Your task to perform on an android device: turn on showing notifications on the lock screen Image 0: 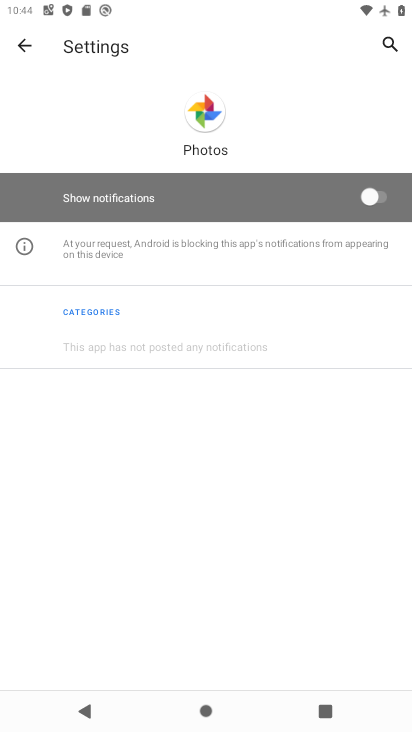
Step 0: press home button
Your task to perform on an android device: turn on showing notifications on the lock screen Image 1: 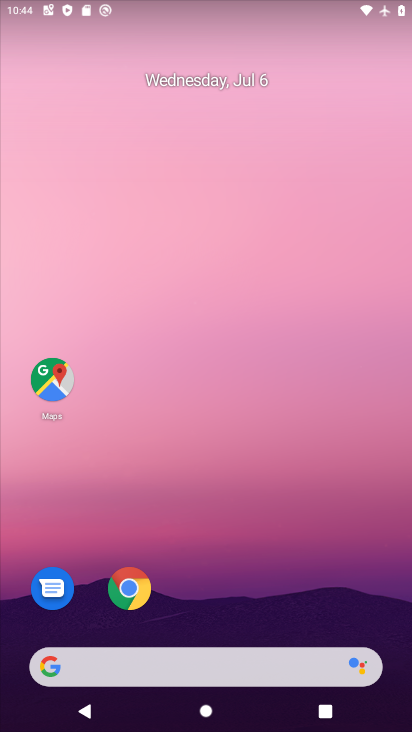
Step 1: drag from (265, 605) to (252, 275)
Your task to perform on an android device: turn on showing notifications on the lock screen Image 2: 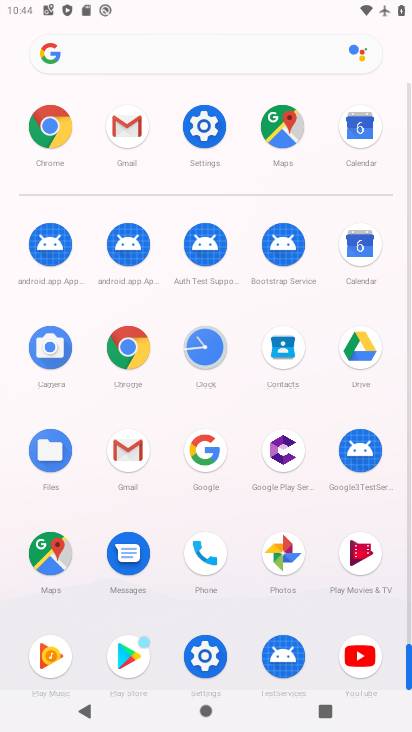
Step 2: click (216, 124)
Your task to perform on an android device: turn on showing notifications on the lock screen Image 3: 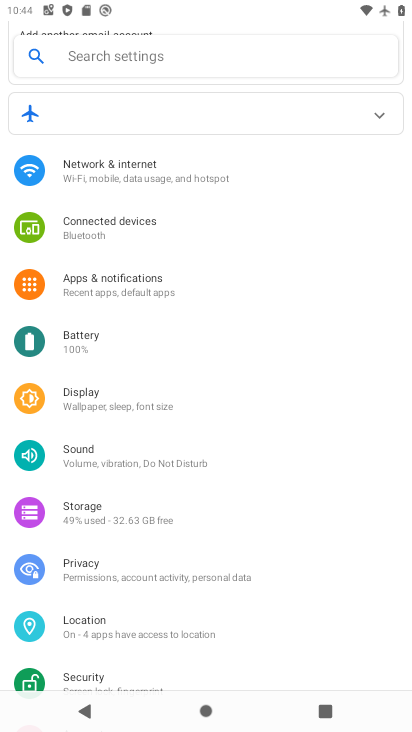
Step 3: click (138, 280)
Your task to perform on an android device: turn on showing notifications on the lock screen Image 4: 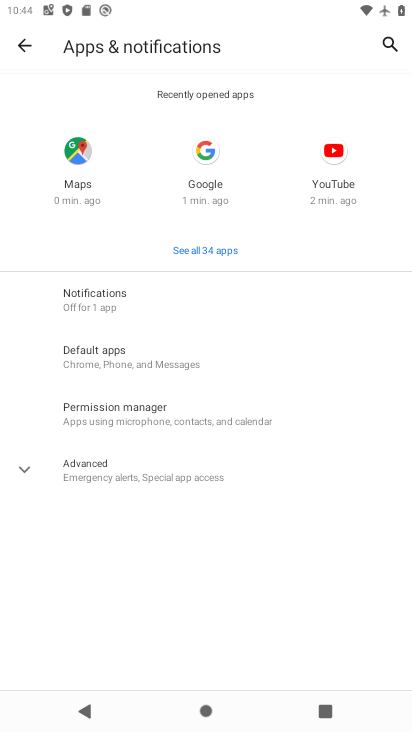
Step 4: click (164, 291)
Your task to perform on an android device: turn on showing notifications on the lock screen Image 5: 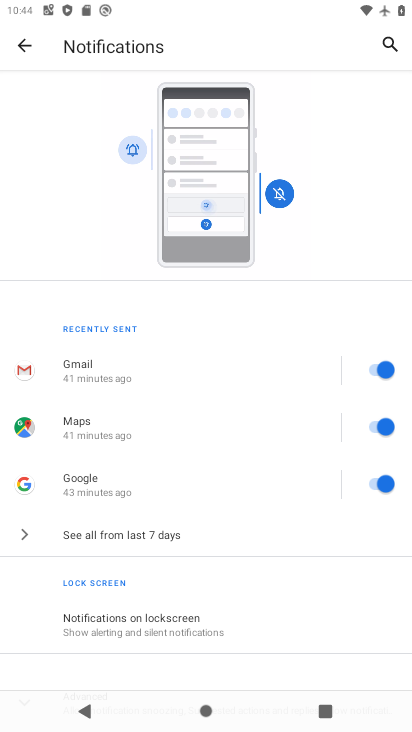
Step 5: drag from (231, 565) to (224, 254)
Your task to perform on an android device: turn on showing notifications on the lock screen Image 6: 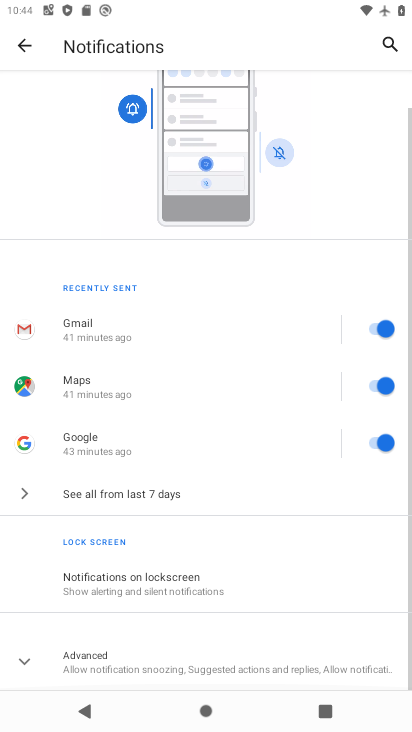
Step 6: click (194, 583)
Your task to perform on an android device: turn on showing notifications on the lock screen Image 7: 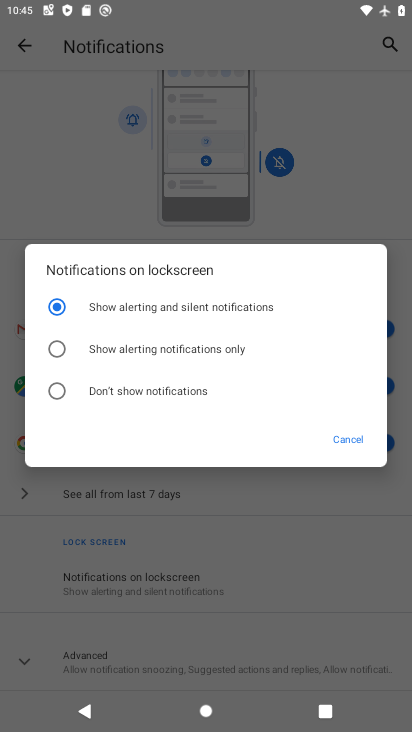
Step 7: task complete